Your task to perform on an android device: Go to notification settings Image 0: 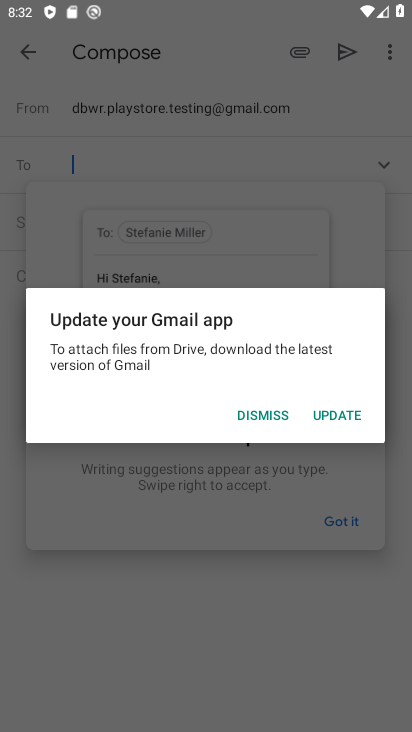
Step 0: press home button
Your task to perform on an android device: Go to notification settings Image 1: 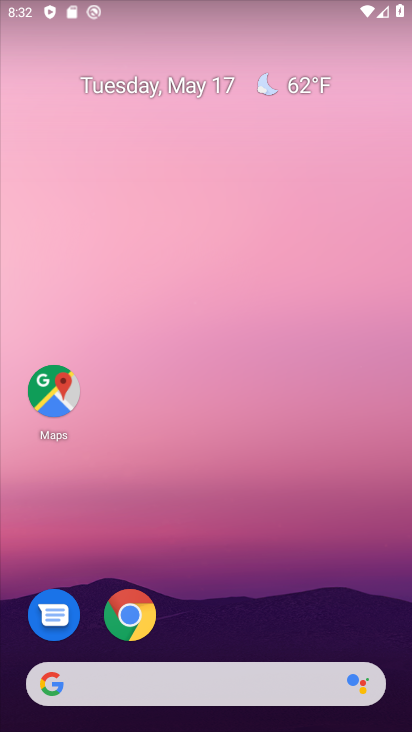
Step 1: drag from (233, 596) to (146, 85)
Your task to perform on an android device: Go to notification settings Image 2: 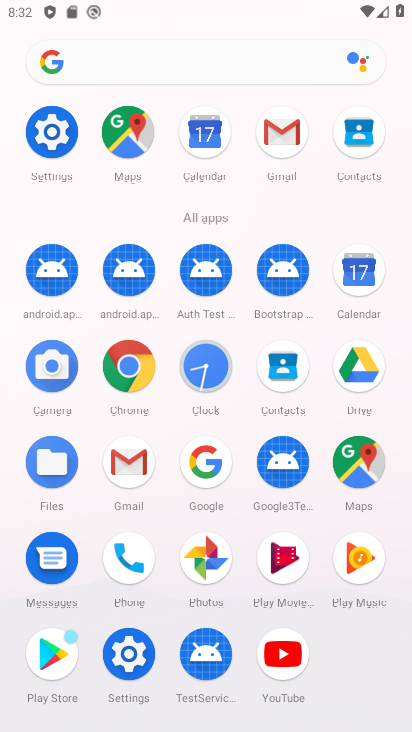
Step 2: click (131, 657)
Your task to perform on an android device: Go to notification settings Image 3: 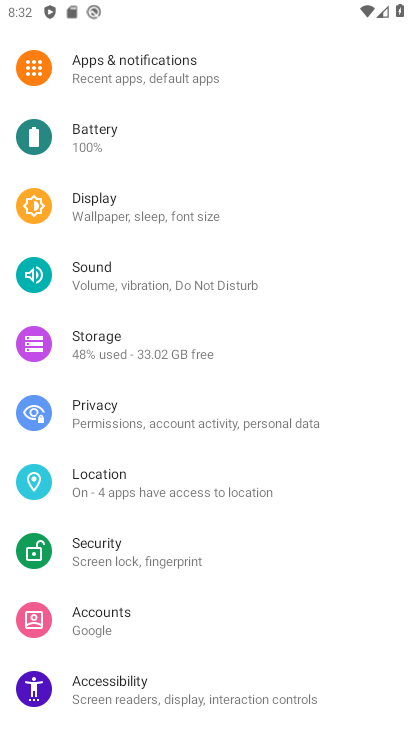
Step 3: click (159, 64)
Your task to perform on an android device: Go to notification settings Image 4: 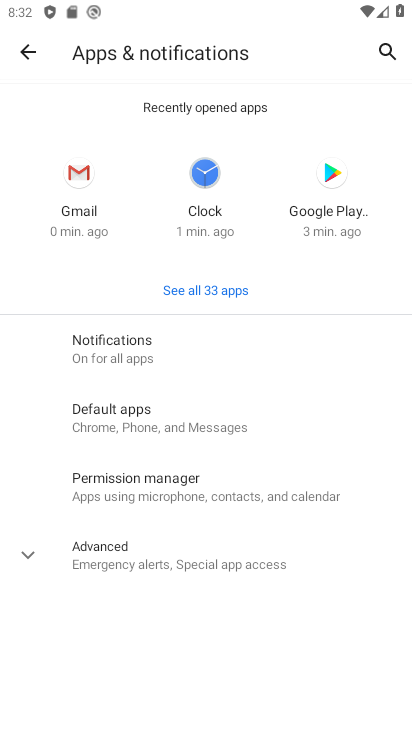
Step 4: click (115, 339)
Your task to perform on an android device: Go to notification settings Image 5: 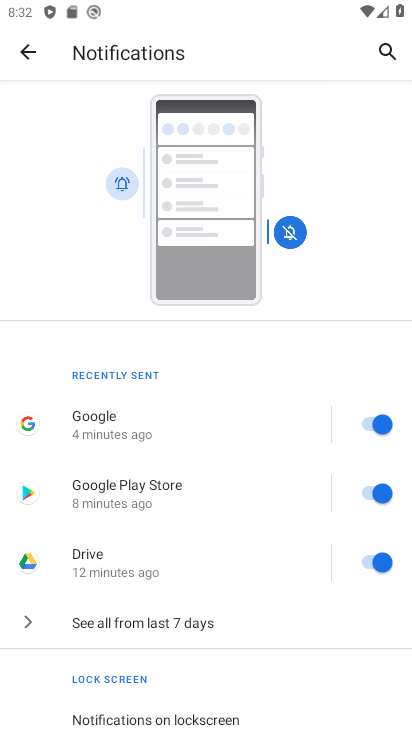
Step 5: task complete